Your task to perform on an android device: visit the assistant section in the google photos Image 0: 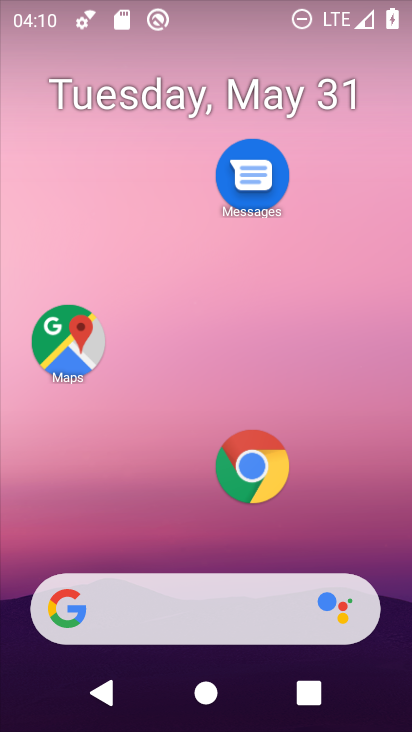
Step 0: drag from (125, 425) to (172, 88)
Your task to perform on an android device: visit the assistant section in the google photos Image 1: 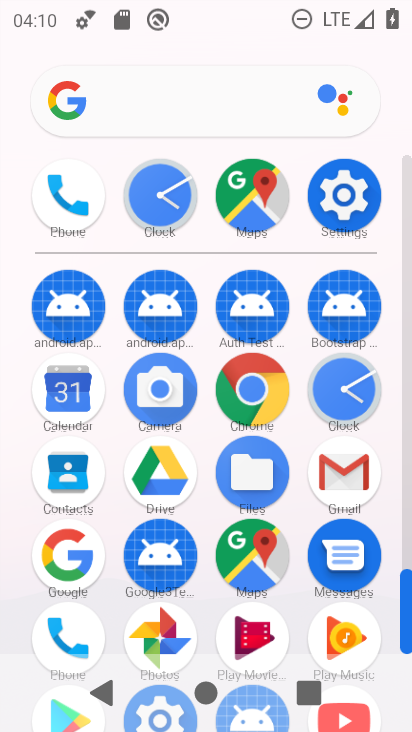
Step 1: click (158, 643)
Your task to perform on an android device: visit the assistant section in the google photos Image 2: 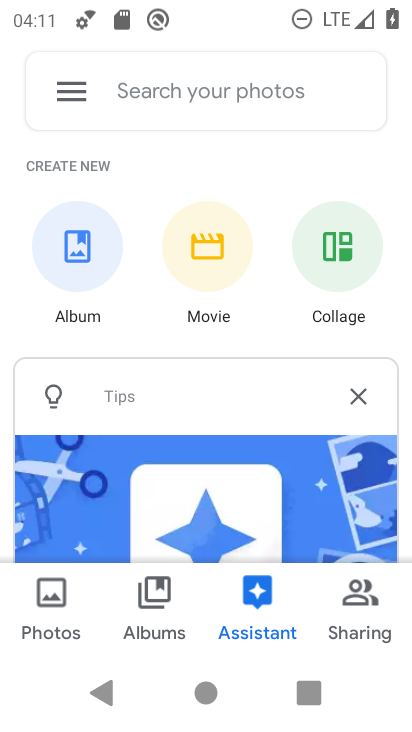
Step 2: task complete